Your task to perform on an android device: Open Amazon Image 0: 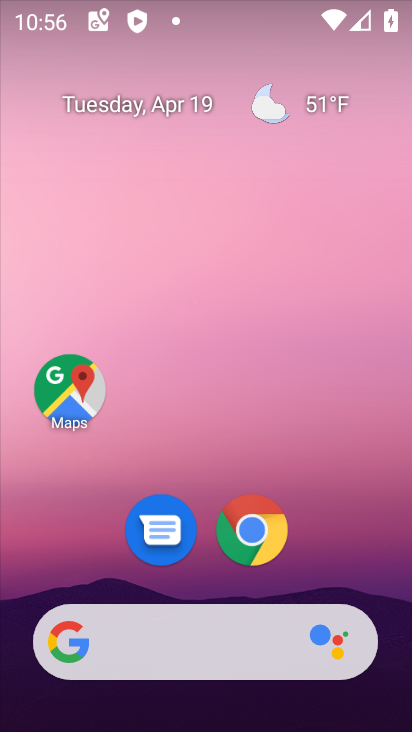
Step 0: click (147, 648)
Your task to perform on an android device: Open Amazon Image 1: 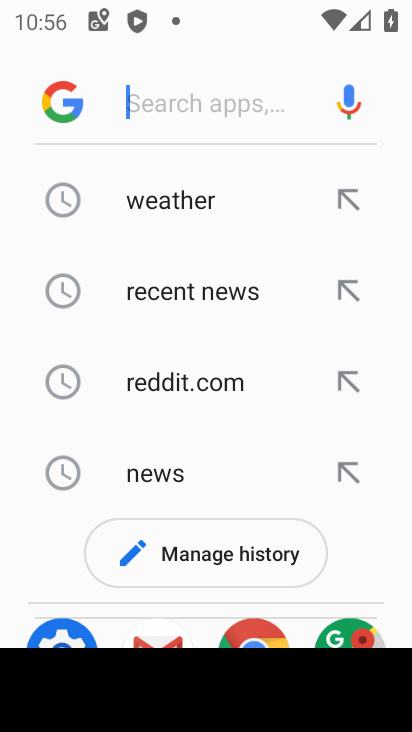
Step 1: type "amazon"
Your task to perform on an android device: Open Amazon Image 2: 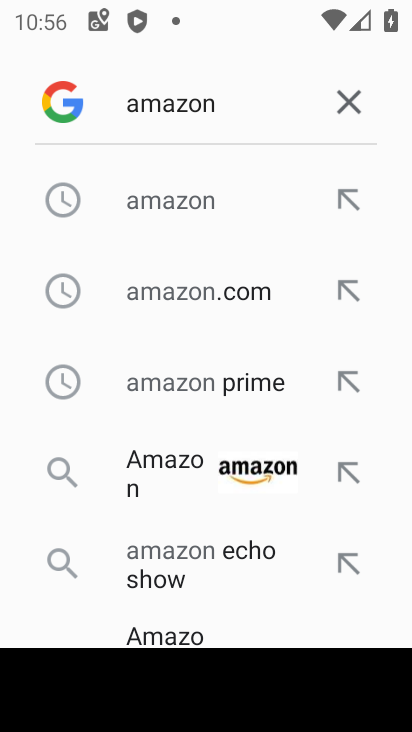
Step 2: click (230, 470)
Your task to perform on an android device: Open Amazon Image 3: 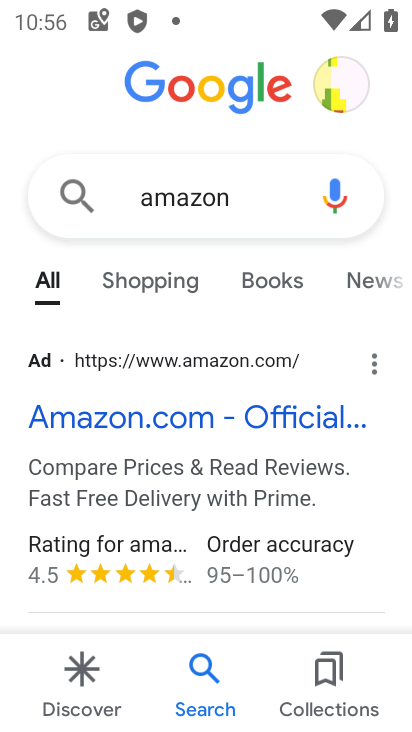
Step 3: click (200, 415)
Your task to perform on an android device: Open Amazon Image 4: 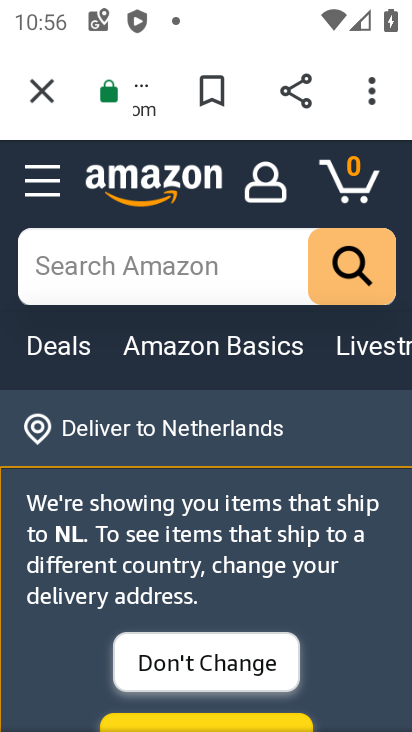
Step 4: task complete